Your task to perform on an android device: toggle sleep mode Image 0: 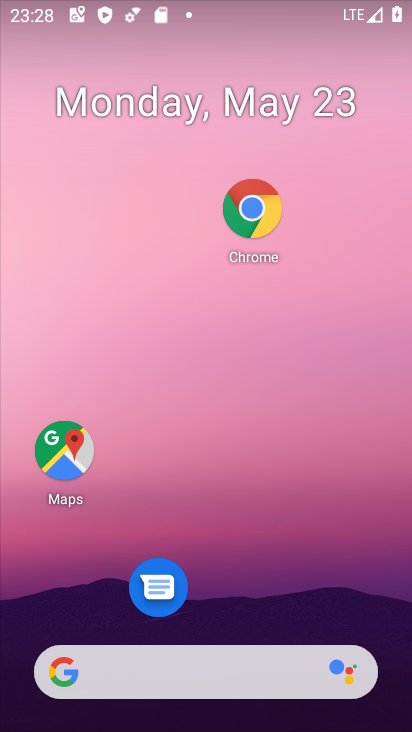
Step 0: drag from (270, 720) to (197, 137)
Your task to perform on an android device: toggle sleep mode Image 1: 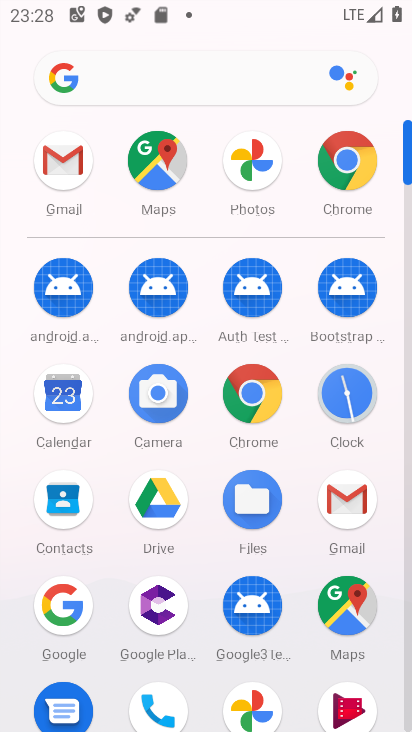
Step 1: drag from (189, 556) to (179, 300)
Your task to perform on an android device: toggle sleep mode Image 2: 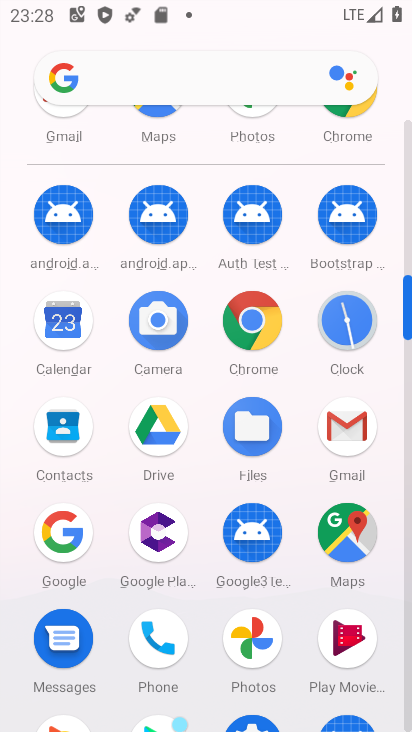
Step 2: drag from (208, 483) to (204, 155)
Your task to perform on an android device: toggle sleep mode Image 3: 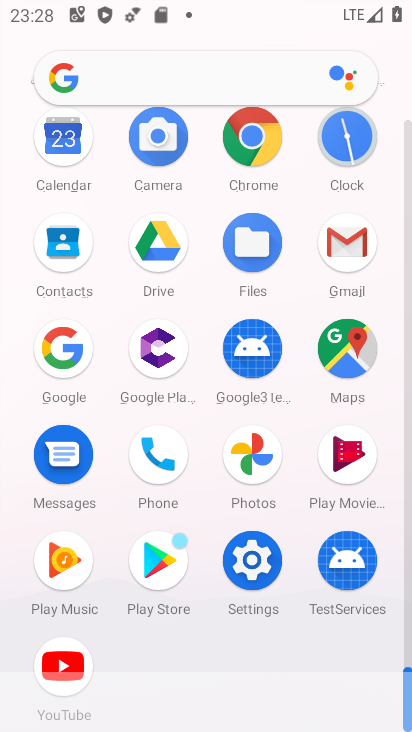
Step 3: drag from (238, 620) to (236, 272)
Your task to perform on an android device: toggle sleep mode Image 4: 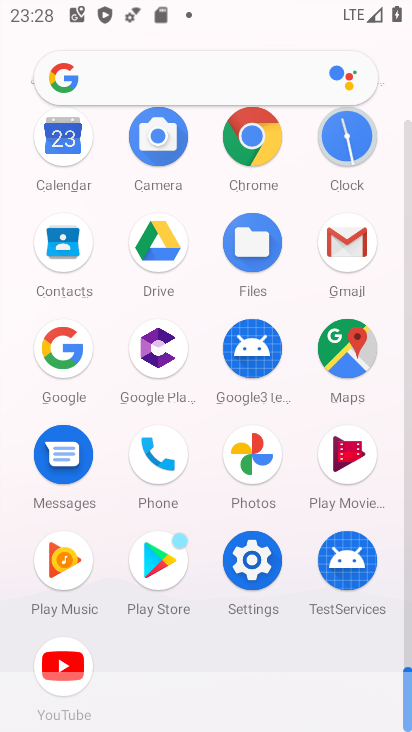
Step 4: click (248, 561)
Your task to perform on an android device: toggle sleep mode Image 5: 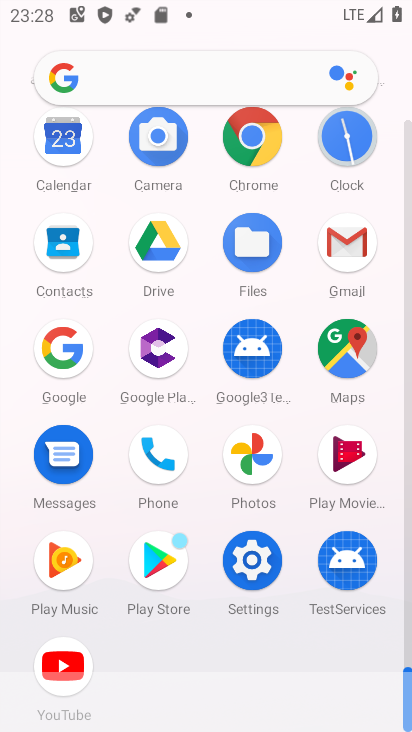
Step 5: click (247, 560)
Your task to perform on an android device: toggle sleep mode Image 6: 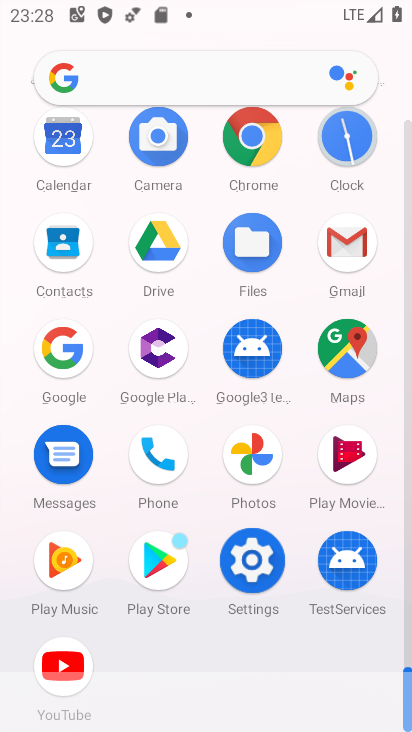
Step 6: click (247, 560)
Your task to perform on an android device: toggle sleep mode Image 7: 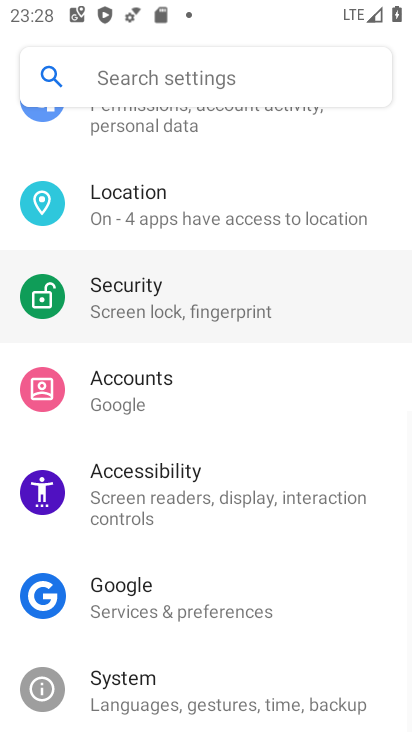
Step 7: click (250, 566)
Your task to perform on an android device: toggle sleep mode Image 8: 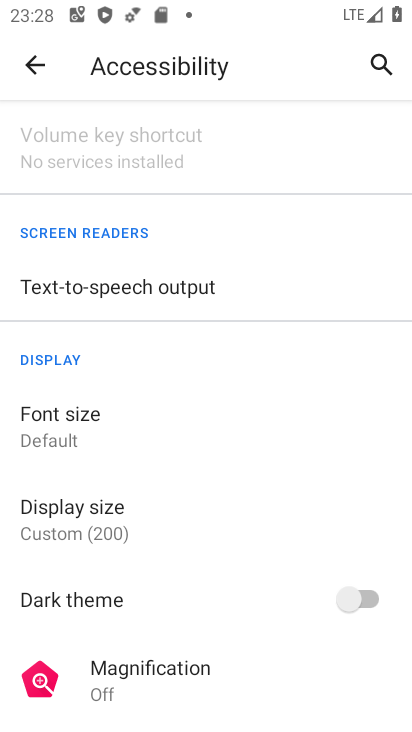
Step 8: click (30, 65)
Your task to perform on an android device: toggle sleep mode Image 9: 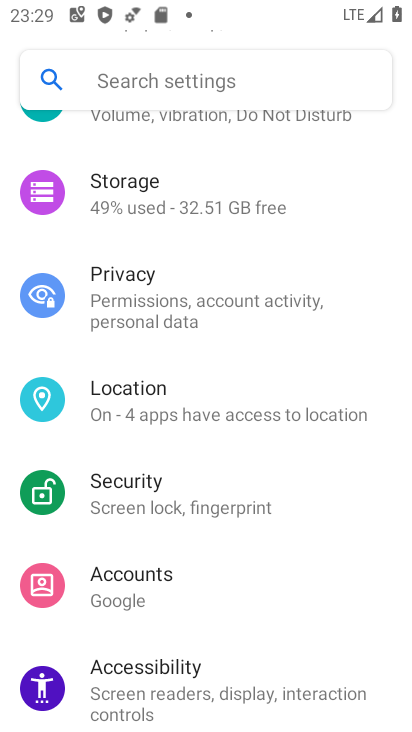
Step 9: drag from (147, 222) to (185, 570)
Your task to perform on an android device: toggle sleep mode Image 10: 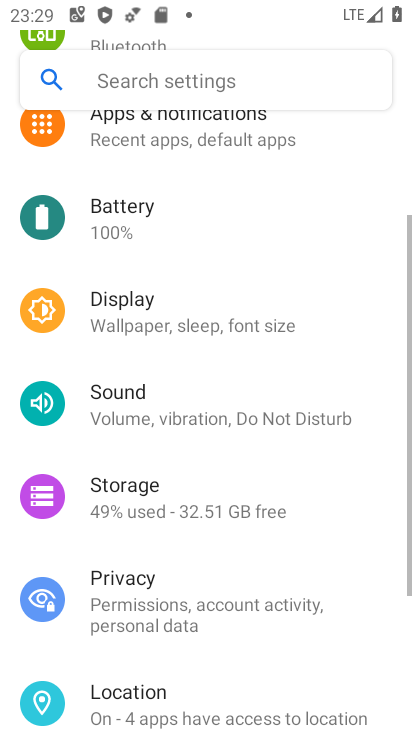
Step 10: drag from (177, 291) to (174, 533)
Your task to perform on an android device: toggle sleep mode Image 11: 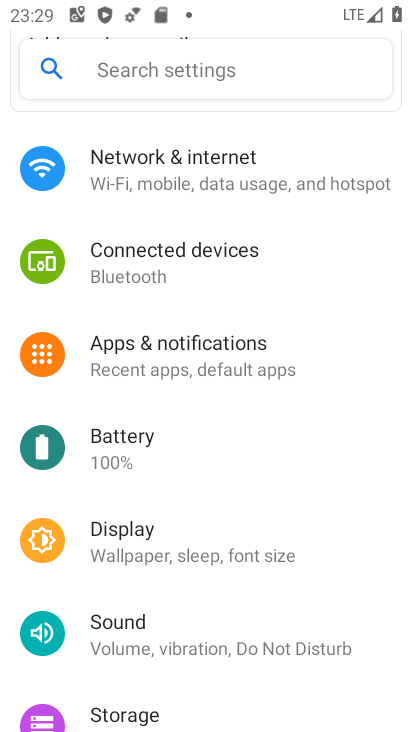
Step 11: click (134, 556)
Your task to perform on an android device: toggle sleep mode Image 12: 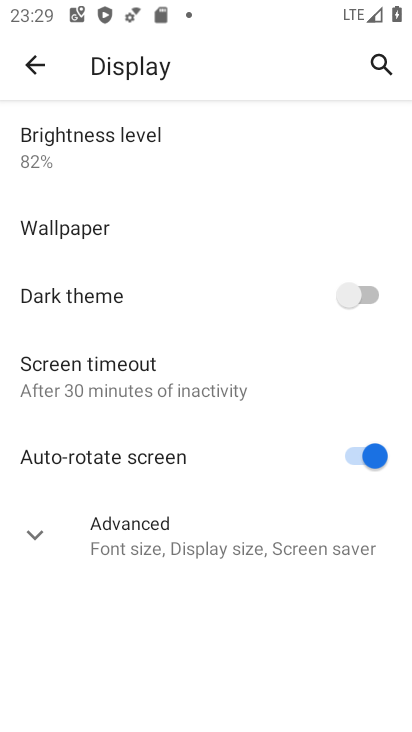
Step 12: click (77, 378)
Your task to perform on an android device: toggle sleep mode Image 13: 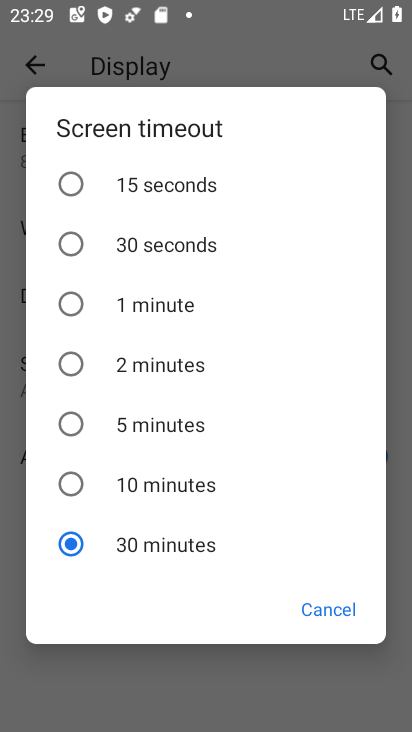
Step 13: click (76, 482)
Your task to perform on an android device: toggle sleep mode Image 14: 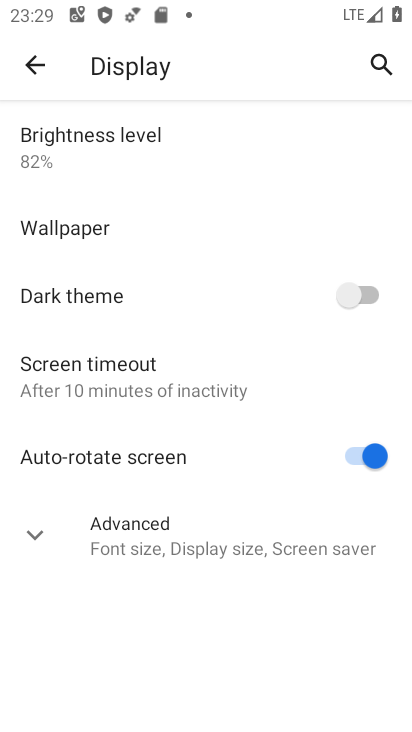
Step 14: task complete